Your task to perform on an android device: check out phone information Image 0: 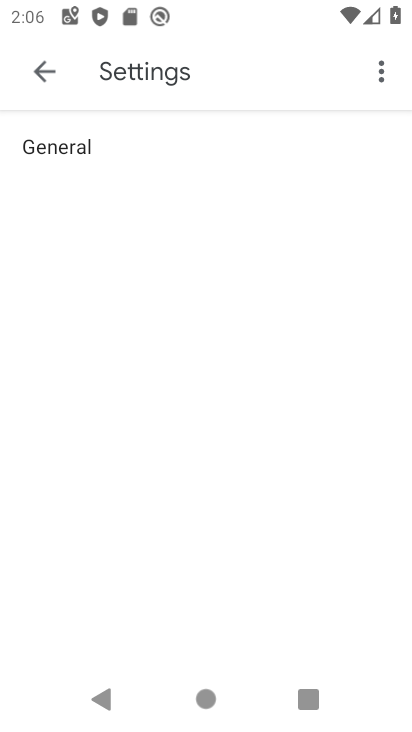
Step 0: click (38, 79)
Your task to perform on an android device: check out phone information Image 1: 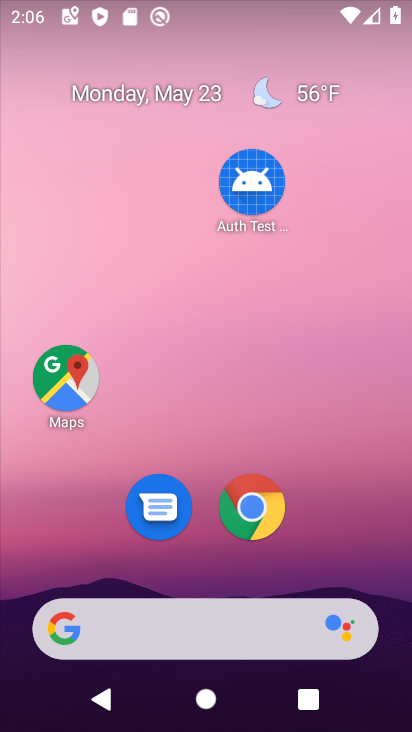
Step 1: drag from (241, 664) to (179, 210)
Your task to perform on an android device: check out phone information Image 2: 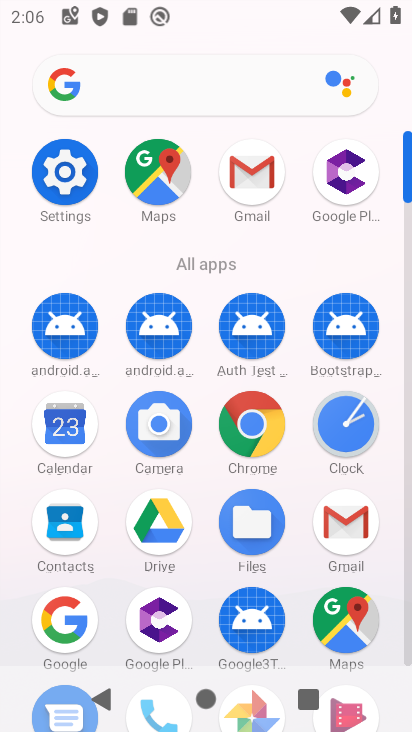
Step 2: click (62, 162)
Your task to perform on an android device: check out phone information Image 3: 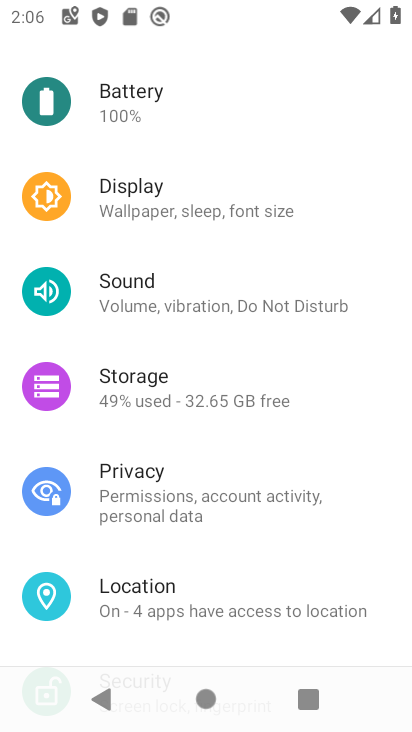
Step 3: drag from (158, 470) to (171, 264)
Your task to perform on an android device: check out phone information Image 4: 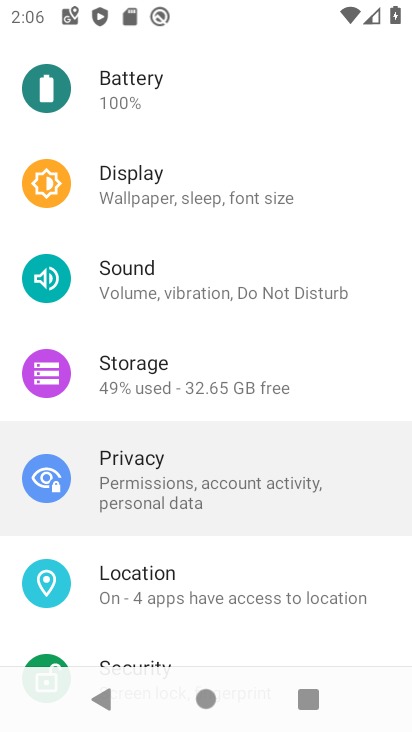
Step 4: drag from (236, 385) to (236, 246)
Your task to perform on an android device: check out phone information Image 5: 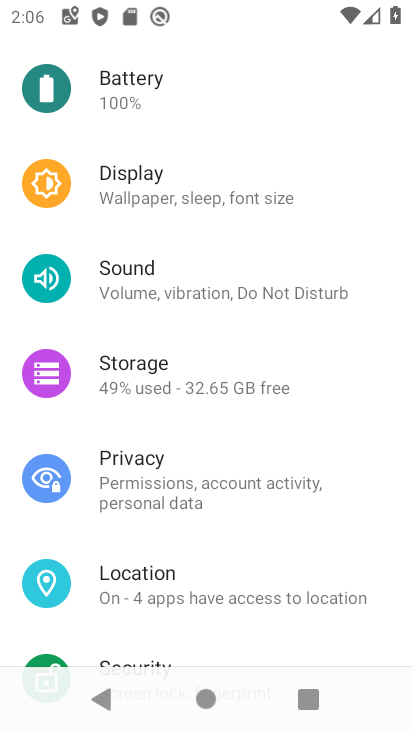
Step 5: drag from (205, 515) to (248, 216)
Your task to perform on an android device: check out phone information Image 6: 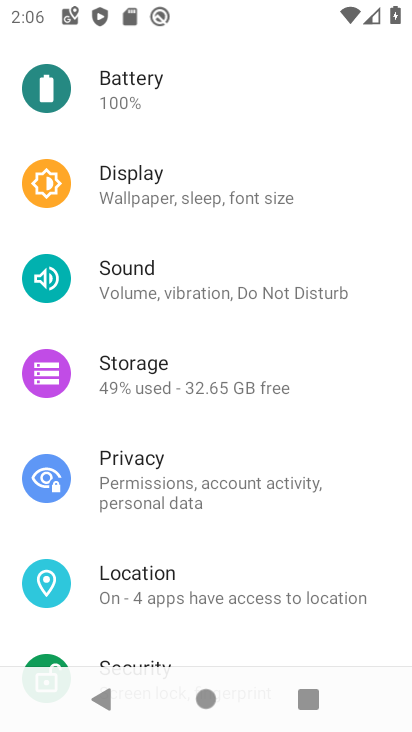
Step 6: drag from (216, 515) to (211, 174)
Your task to perform on an android device: check out phone information Image 7: 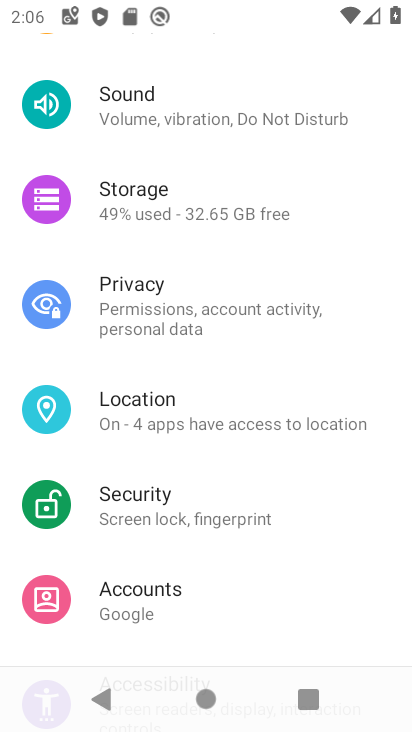
Step 7: drag from (167, 411) to (167, 215)
Your task to perform on an android device: check out phone information Image 8: 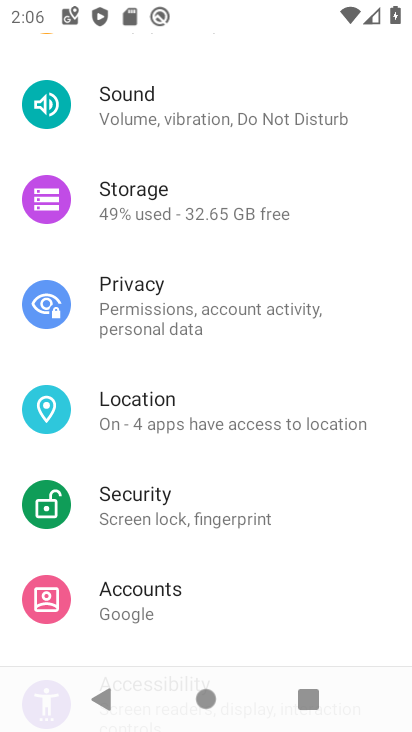
Step 8: drag from (127, 314) to (134, 115)
Your task to perform on an android device: check out phone information Image 9: 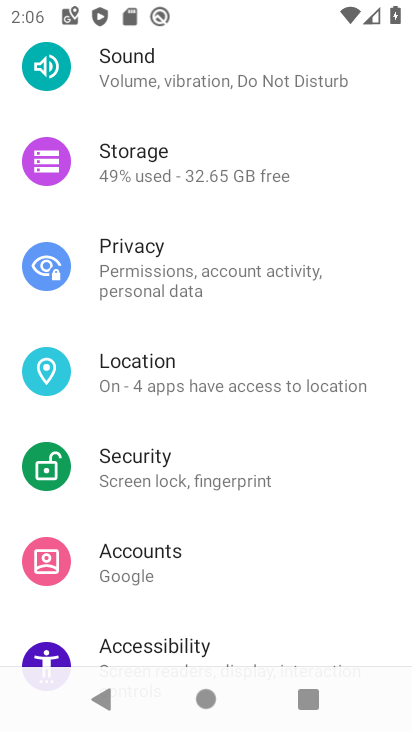
Step 9: drag from (185, 458) to (182, 342)
Your task to perform on an android device: check out phone information Image 10: 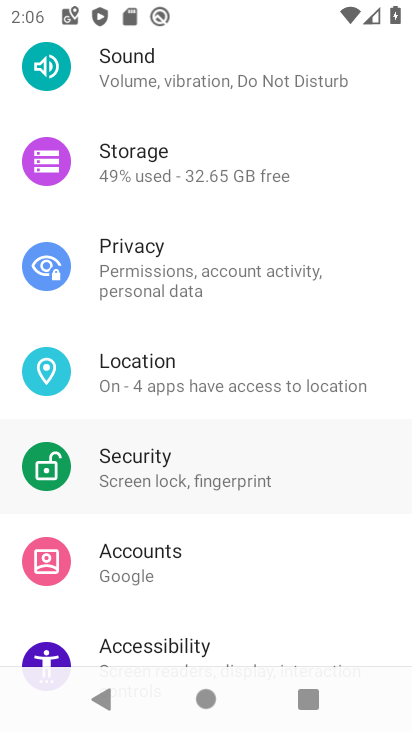
Step 10: drag from (199, 545) to (194, 311)
Your task to perform on an android device: check out phone information Image 11: 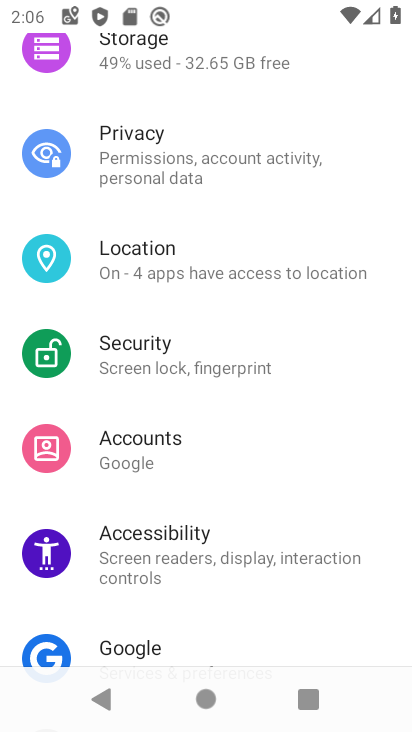
Step 11: drag from (176, 553) to (176, 240)
Your task to perform on an android device: check out phone information Image 12: 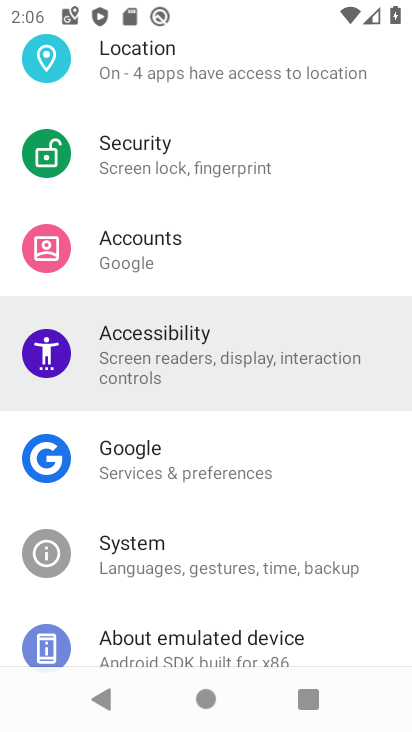
Step 12: drag from (165, 599) to (162, 322)
Your task to perform on an android device: check out phone information Image 13: 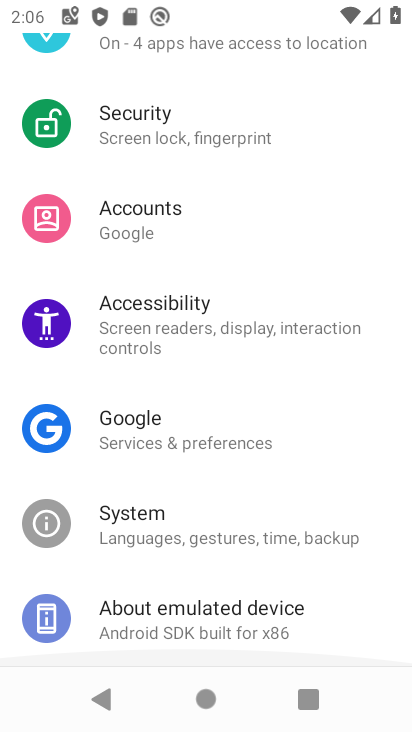
Step 13: drag from (214, 523) to (198, 229)
Your task to perform on an android device: check out phone information Image 14: 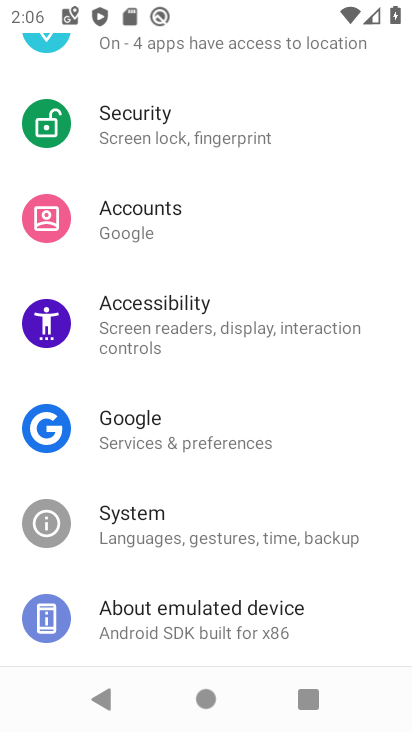
Step 14: click (179, 623)
Your task to perform on an android device: check out phone information Image 15: 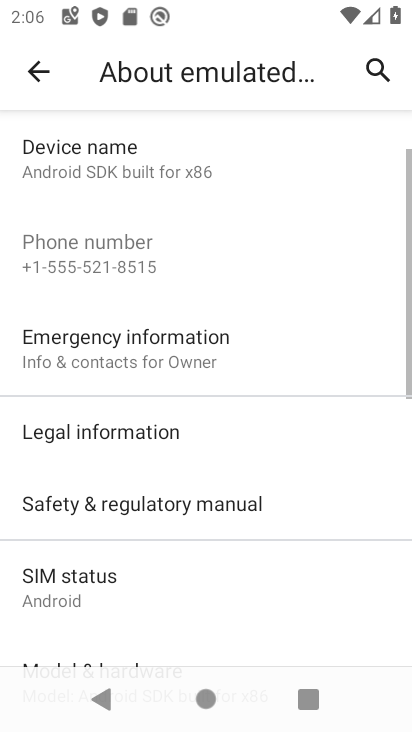
Step 15: drag from (130, 381) to (130, 166)
Your task to perform on an android device: check out phone information Image 16: 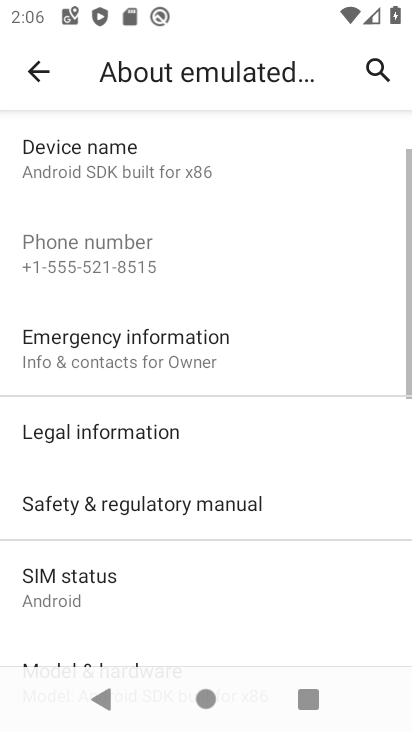
Step 16: click (167, 268)
Your task to perform on an android device: check out phone information Image 17: 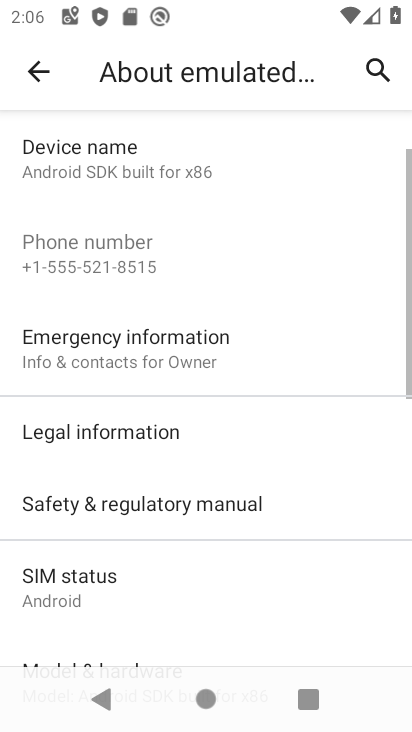
Step 17: drag from (145, 333) to (131, 239)
Your task to perform on an android device: check out phone information Image 18: 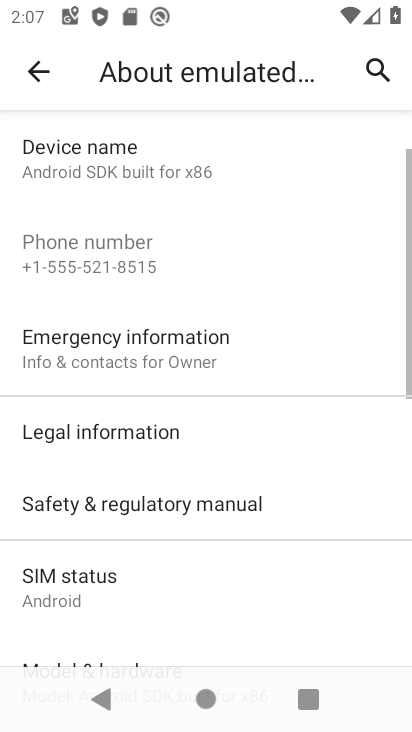
Step 18: drag from (135, 381) to (135, 239)
Your task to perform on an android device: check out phone information Image 19: 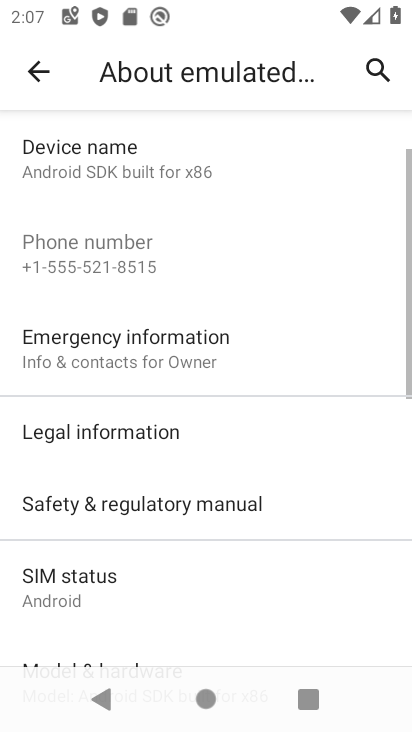
Step 19: drag from (150, 352) to (139, 236)
Your task to perform on an android device: check out phone information Image 20: 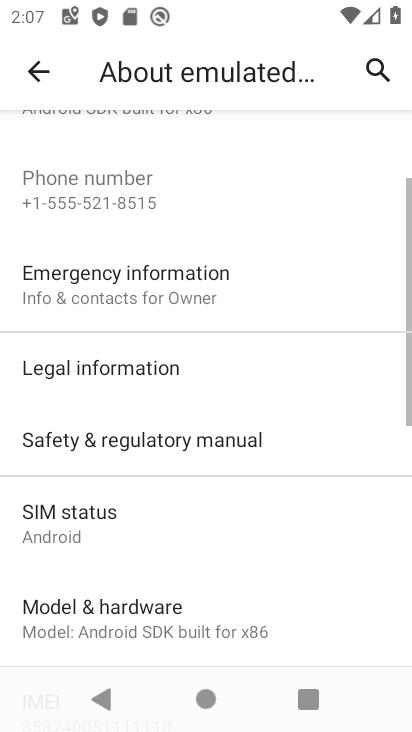
Step 20: drag from (143, 418) to (143, 185)
Your task to perform on an android device: check out phone information Image 21: 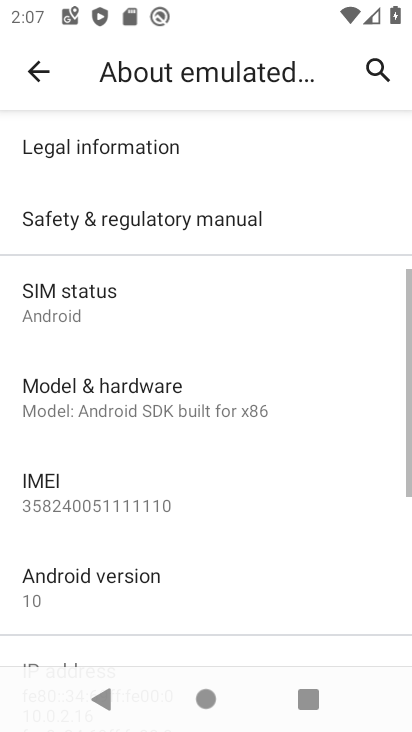
Step 21: click (151, 260)
Your task to perform on an android device: check out phone information Image 22: 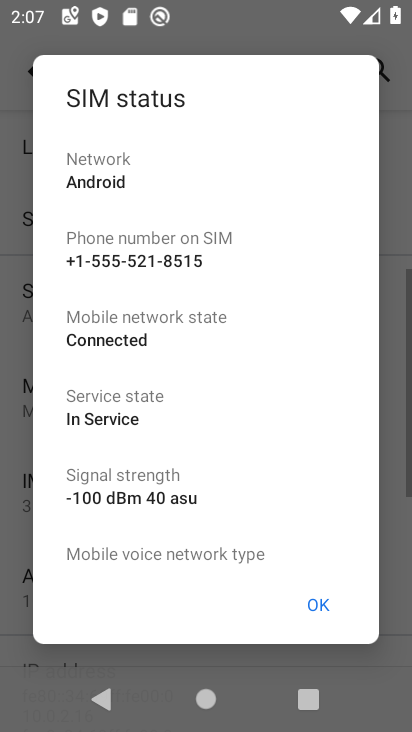
Step 22: click (88, 270)
Your task to perform on an android device: check out phone information Image 23: 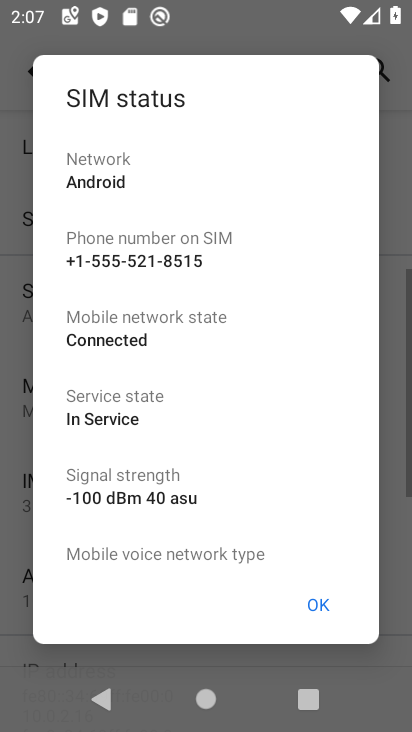
Step 23: click (135, 189)
Your task to perform on an android device: check out phone information Image 24: 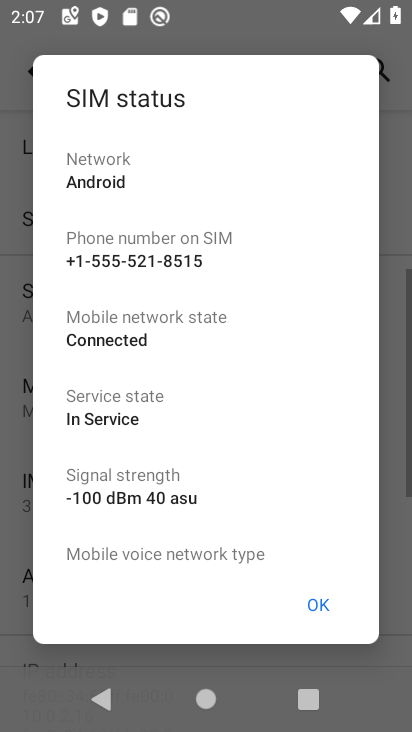
Step 24: task complete